Your task to perform on an android device: Clear the cart on amazon.com. Add alienware area 51 to the cart on amazon.com Image 0: 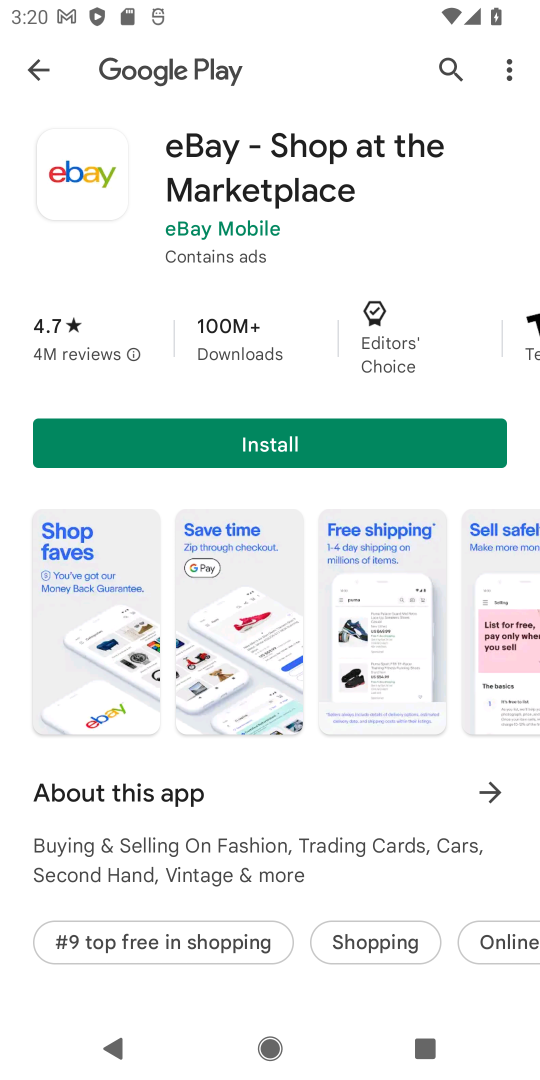
Step 0: press home button
Your task to perform on an android device: Clear the cart on amazon.com. Add alienware area 51 to the cart on amazon.com Image 1: 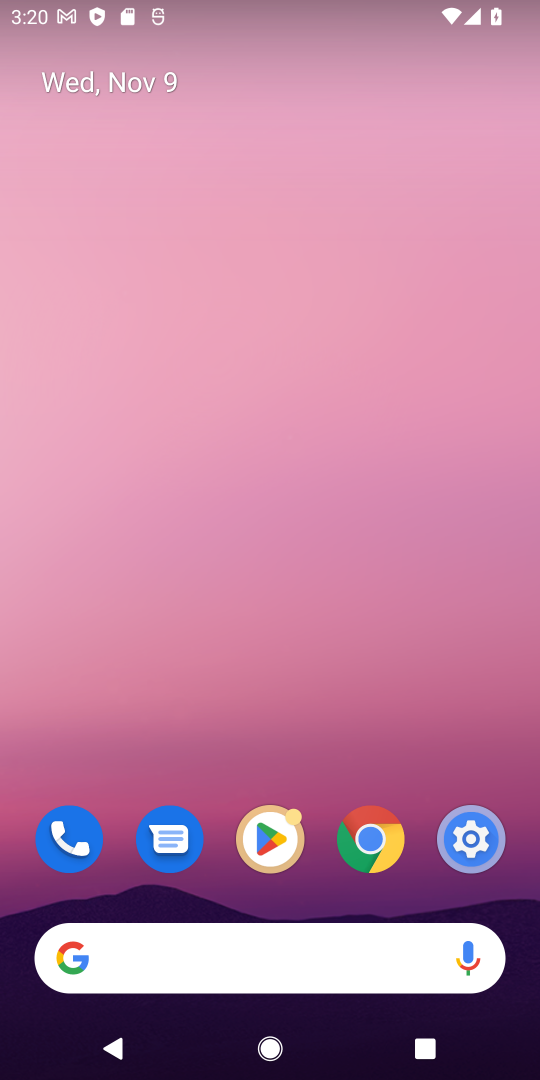
Step 1: click (291, 984)
Your task to perform on an android device: Clear the cart on amazon.com. Add alienware area 51 to the cart on amazon.com Image 2: 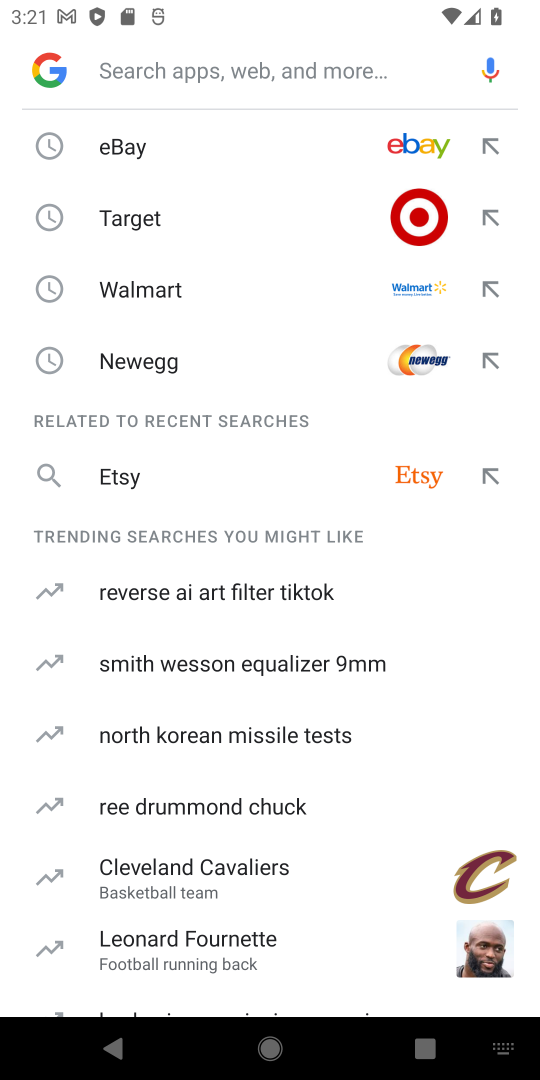
Step 2: type "amazon"
Your task to perform on an android device: Clear the cart on amazon.com. Add alienware area 51 to the cart on amazon.com Image 3: 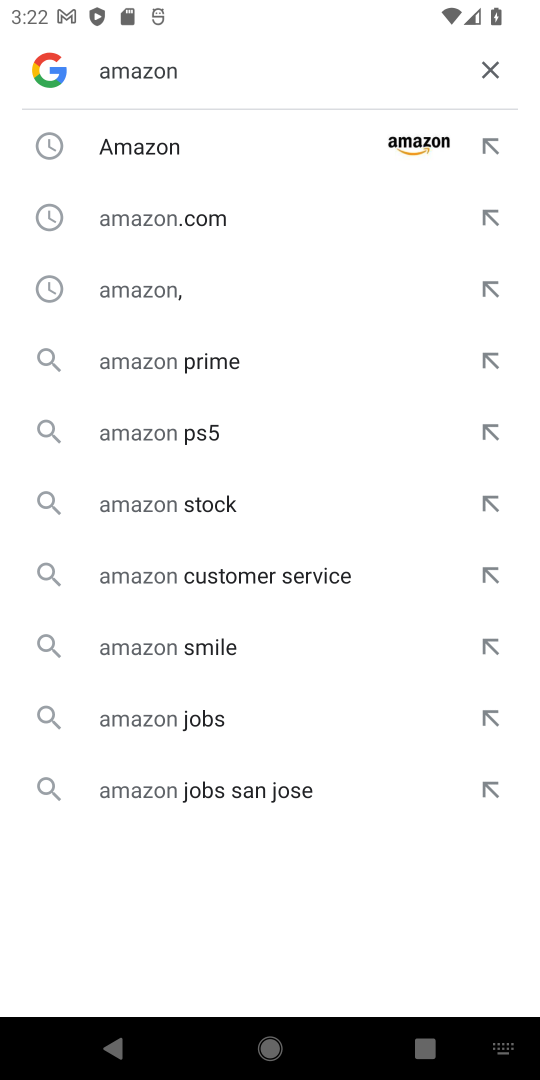
Step 3: click (176, 125)
Your task to perform on an android device: Clear the cart on amazon.com. Add alienware area 51 to the cart on amazon.com Image 4: 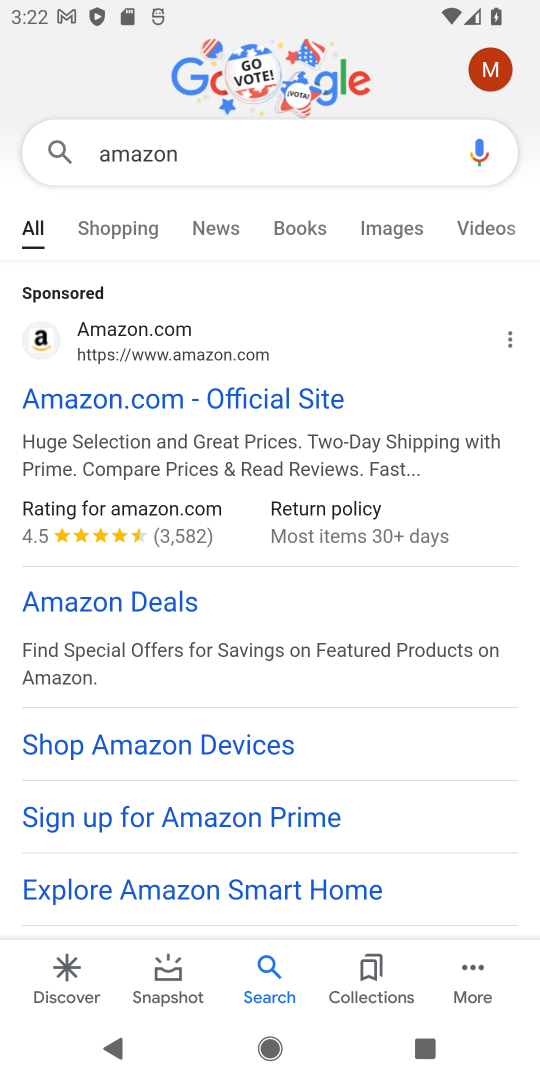
Step 4: click (205, 390)
Your task to perform on an android device: Clear the cart on amazon.com. Add alienware area 51 to the cart on amazon.com Image 5: 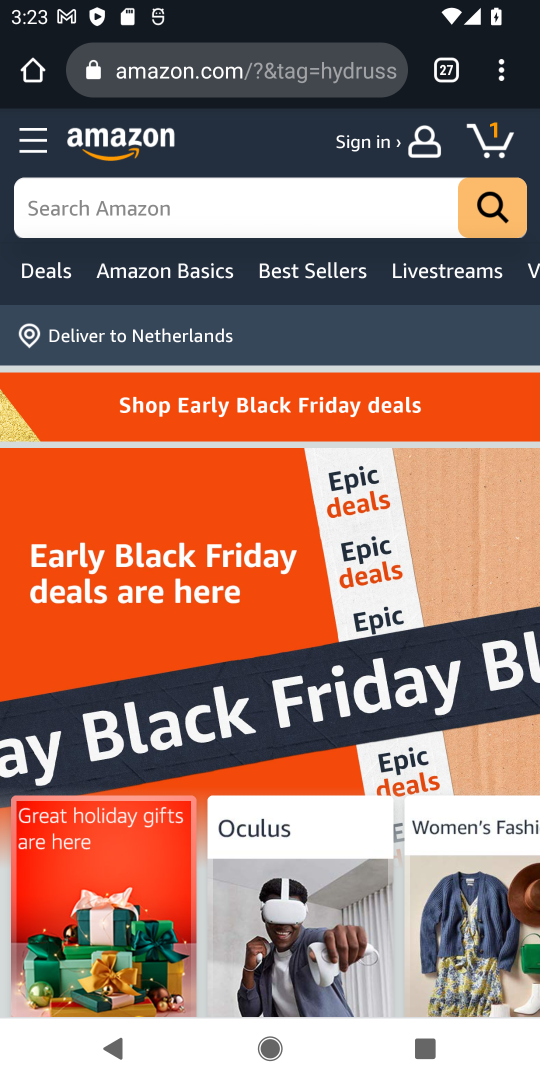
Step 5: task complete